Your task to perform on an android device: Search for "macbook" on target, select the first entry, add it to the cart, then select checkout. Image 0: 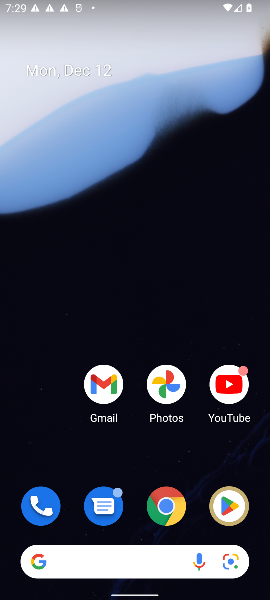
Step 0: click (148, 560)
Your task to perform on an android device: Search for "macbook" on target, select the first entry, add it to the cart, then select checkout. Image 1: 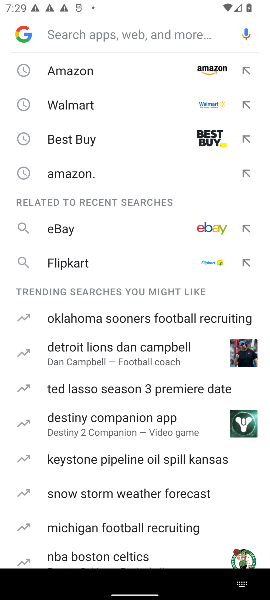
Step 1: type "target"
Your task to perform on an android device: Search for "macbook" on target, select the first entry, add it to the cart, then select checkout. Image 2: 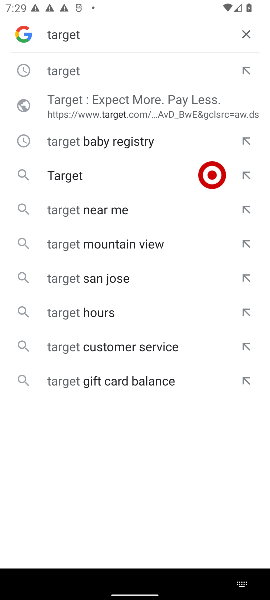
Step 2: click (106, 173)
Your task to perform on an android device: Search for "macbook" on target, select the first entry, add it to the cart, then select checkout. Image 3: 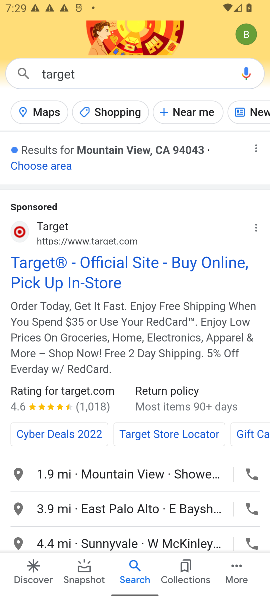
Step 3: click (61, 266)
Your task to perform on an android device: Search for "macbook" on target, select the first entry, add it to the cart, then select checkout. Image 4: 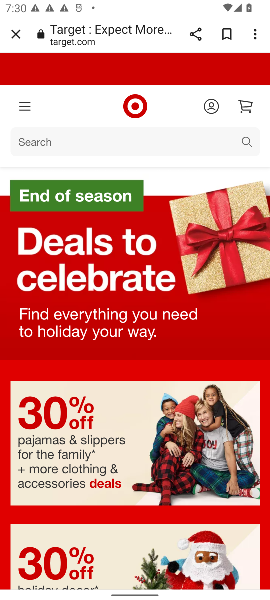
Step 4: click (114, 152)
Your task to perform on an android device: Search for "macbook" on target, select the first entry, add it to the cart, then select checkout. Image 5: 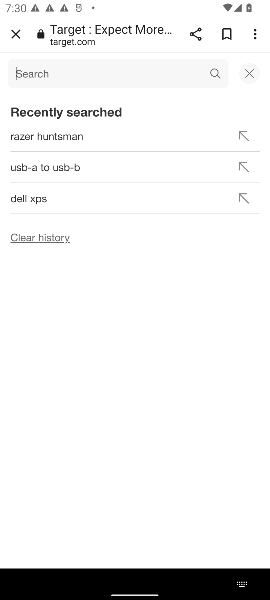
Step 5: type "macbook"
Your task to perform on an android device: Search for "macbook" on target, select the first entry, add it to the cart, then select checkout. Image 6: 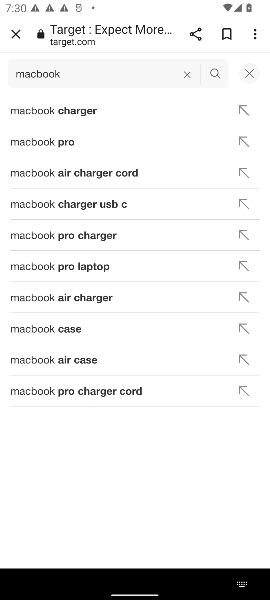
Step 6: click (216, 79)
Your task to perform on an android device: Search for "macbook" on target, select the first entry, add it to the cart, then select checkout. Image 7: 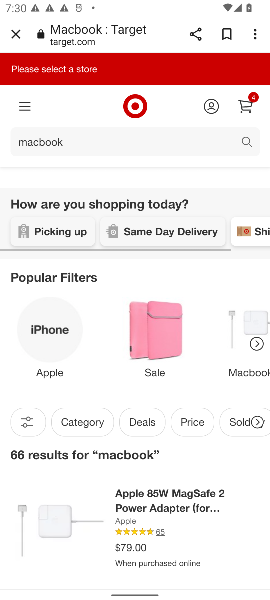
Step 7: drag from (126, 533) to (160, 287)
Your task to perform on an android device: Search for "macbook" on target, select the first entry, add it to the cart, then select checkout. Image 8: 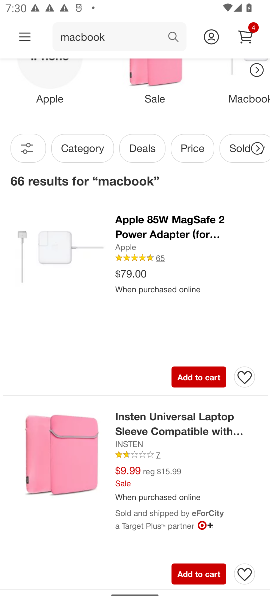
Step 8: drag from (160, 287) to (172, 563)
Your task to perform on an android device: Search for "macbook" on target, select the first entry, add it to the cart, then select checkout. Image 9: 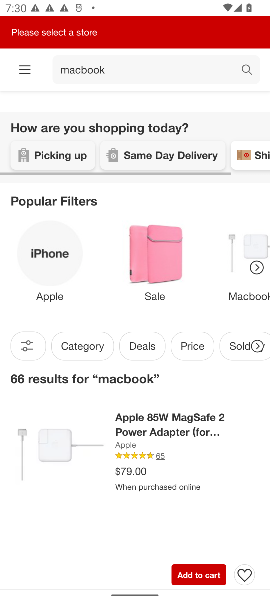
Step 9: click (165, 76)
Your task to perform on an android device: Search for "macbook" on target, select the first entry, add it to the cart, then select checkout. Image 10: 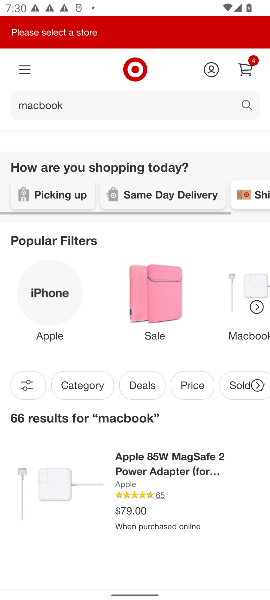
Step 10: task complete